Your task to perform on an android device: turn on airplane mode Image 0: 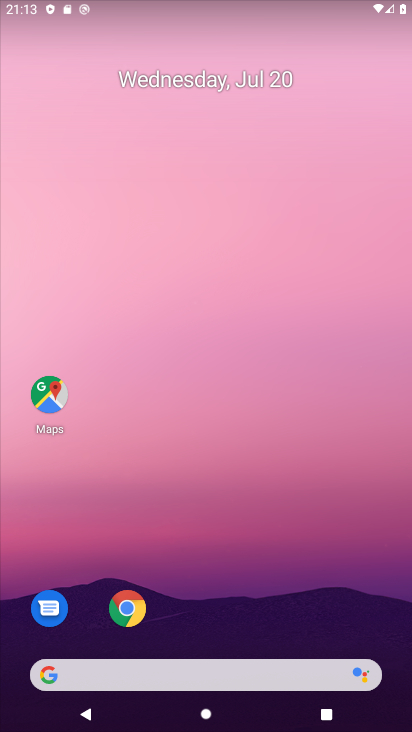
Step 0: click (132, 275)
Your task to perform on an android device: turn on airplane mode Image 1: 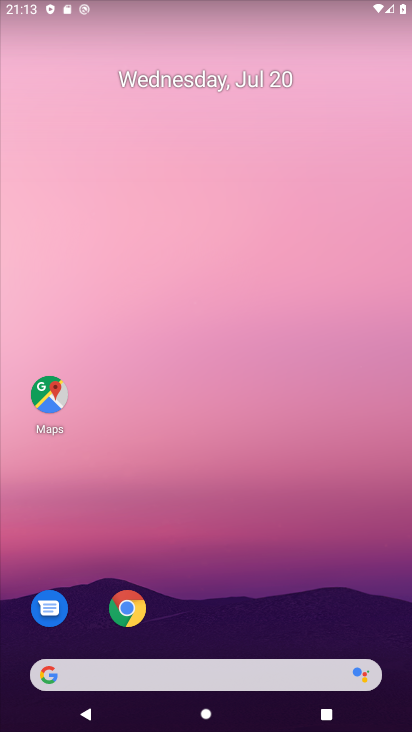
Step 1: drag from (191, 588) to (241, 195)
Your task to perform on an android device: turn on airplane mode Image 2: 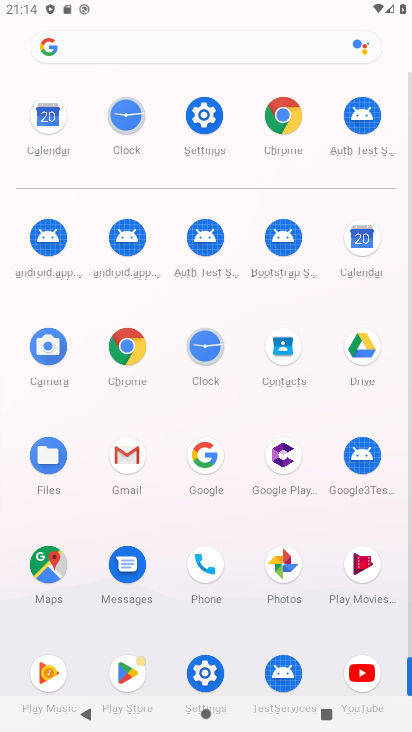
Step 2: click (203, 118)
Your task to perform on an android device: turn on airplane mode Image 3: 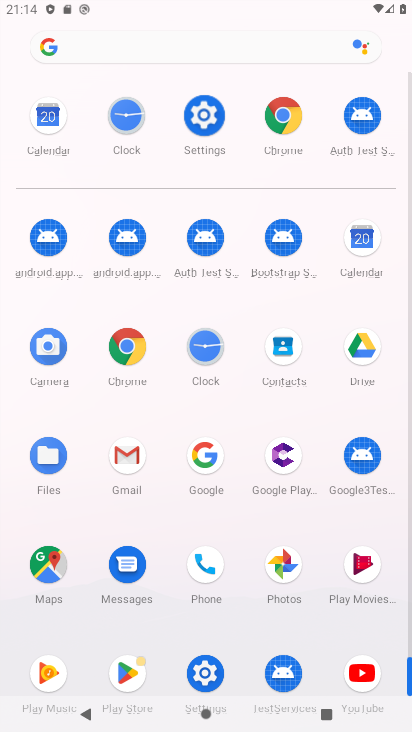
Step 3: click (205, 112)
Your task to perform on an android device: turn on airplane mode Image 4: 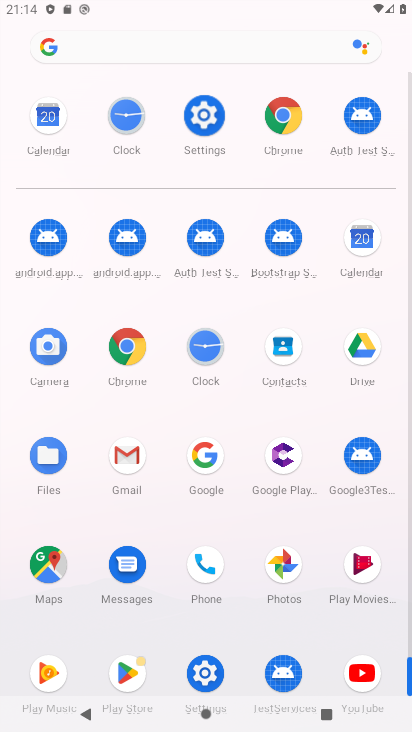
Step 4: click (206, 112)
Your task to perform on an android device: turn on airplane mode Image 5: 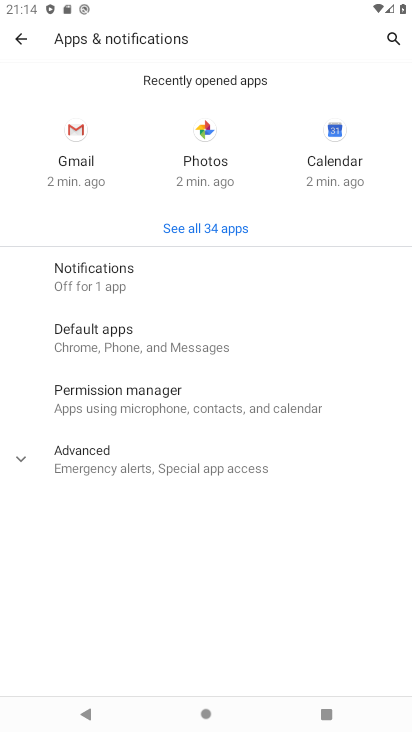
Step 5: press back button
Your task to perform on an android device: turn on airplane mode Image 6: 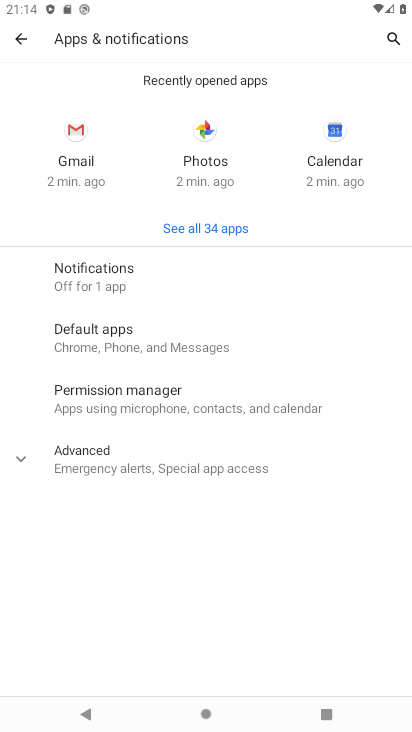
Step 6: press back button
Your task to perform on an android device: turn on airplane mode Image 7: 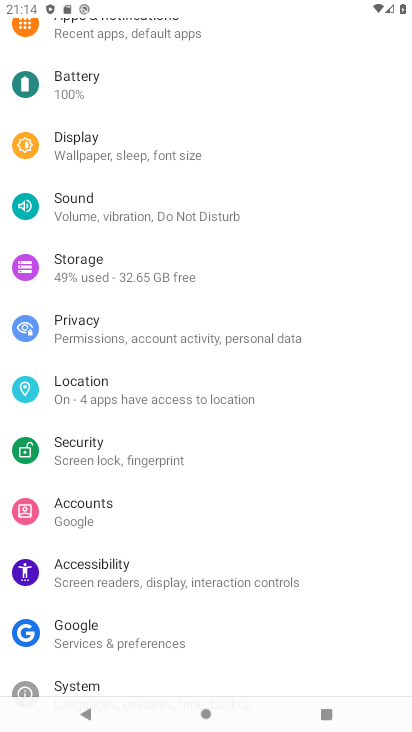
Step 7: press back button
Your task to perform on an android device: turn on airplane mode Image 8: 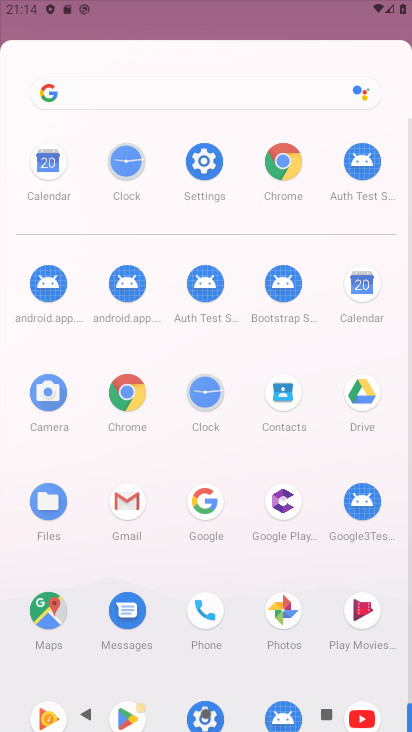
Step 8: click (25, 42)
Your task to perform on an android device: turn on airplane mode Image 9: 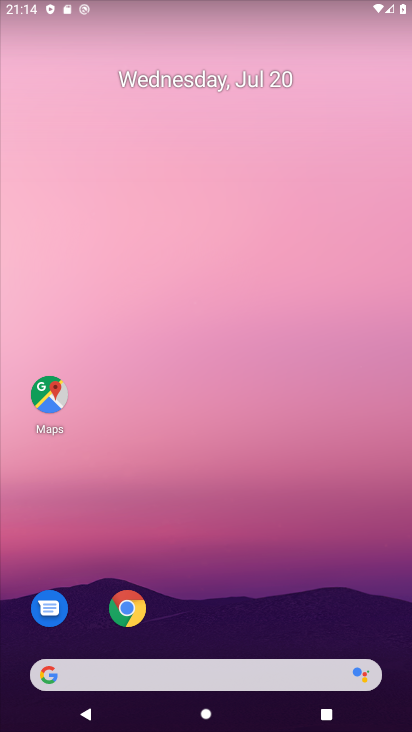
Step 9: drag from (197, 611) to (195, 64)
Your task to perform on an android device: turn on airplane mode Image 10: 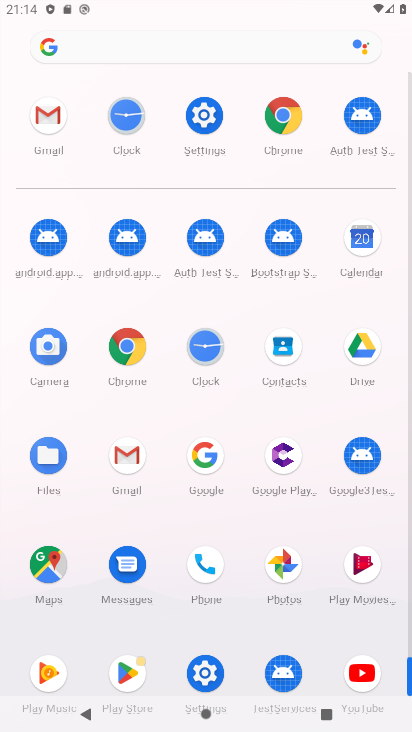
Step 10: click (207, 111)
Your task to perform on an android device: turn on airplane mode Image 11: 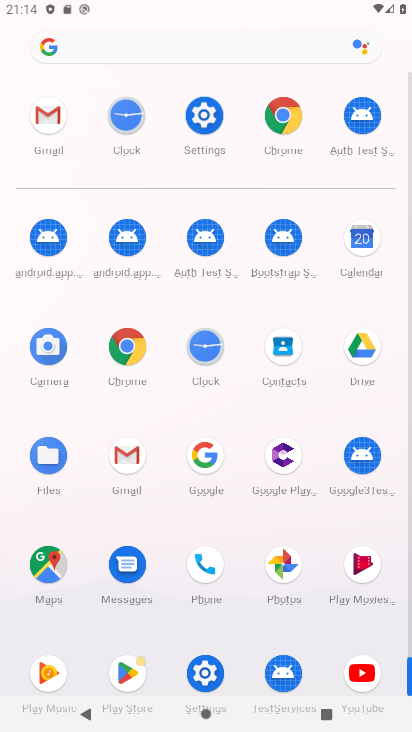
Step 11: click (206, 111)
Your task to perform on an android device: turn on airplane mode Image 12: 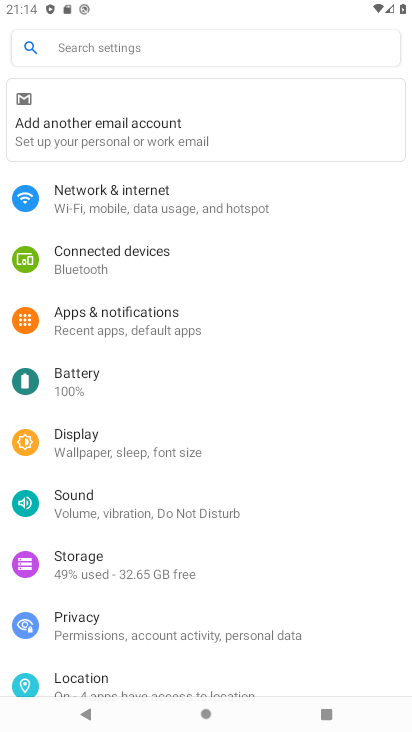
Step 12: click (143, 211)
Your task to perform on an android device: turn on airplane mode Image 13: 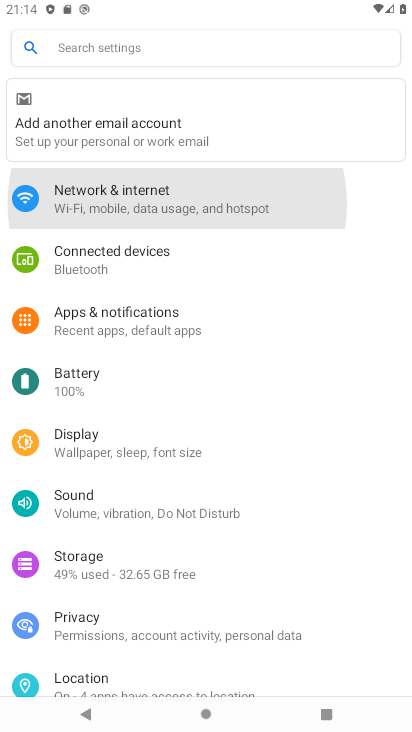
Step 13: click (143, 206)
Your task to perform on an android device: turn on airplane mode Image 14: 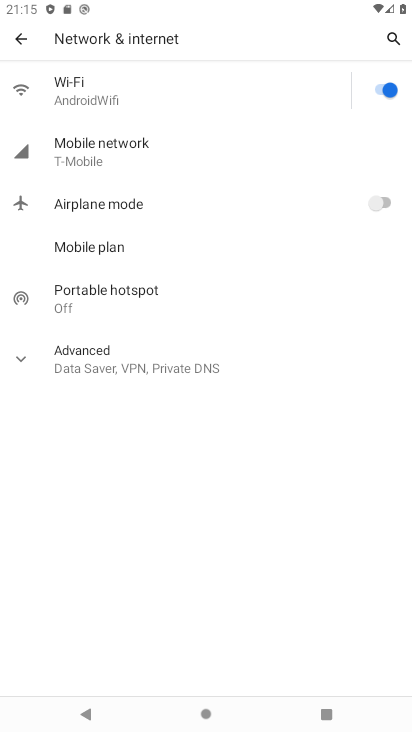
Step 14: click (373, 193)
Your task to perform on an android device: turn on airplane mode Image 15: 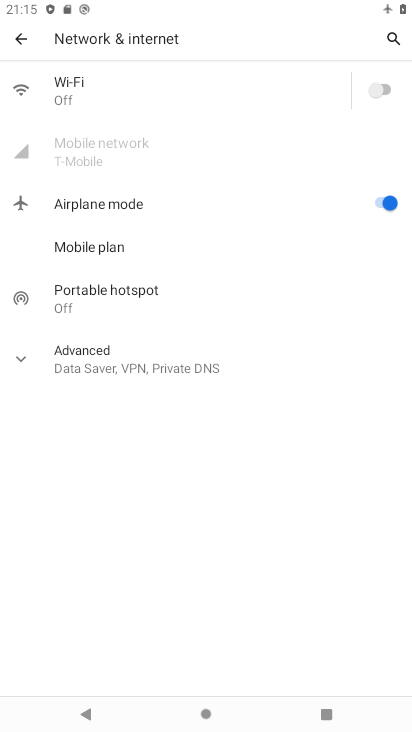
Step 15: task complete